Your task to perform on an android device: set the stopwatch Image 0: 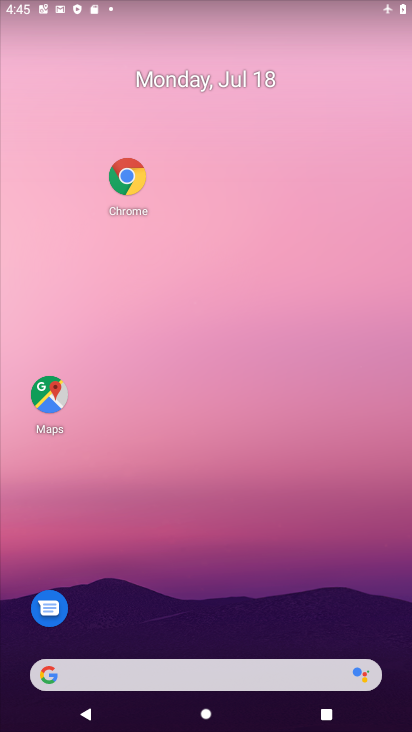
Step 0: drag from (225, 582) to (243, 99)
Your task to perform on an android device: set the stopwatch Image 1: 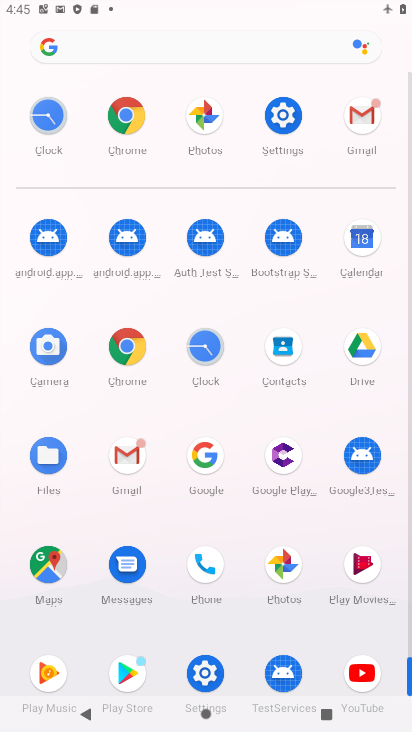
Step 1: drag from (213, 489) to (240, 314)
Your task to perform on an android device: set the stopwatch Image 2: 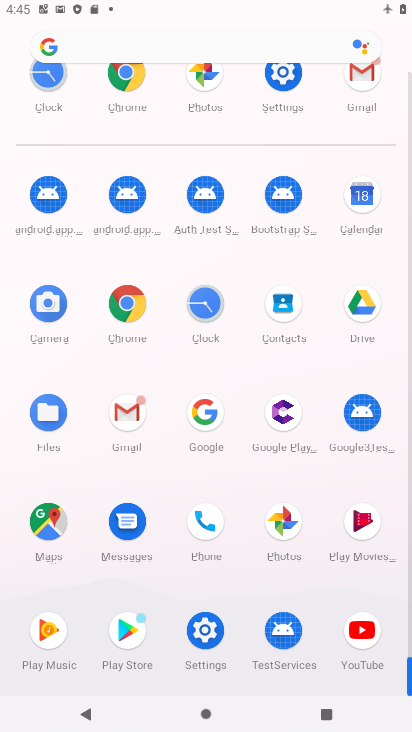
Step 2: click (205, 323)
Your task to perform on an android device: set the stopwatch Image 3: 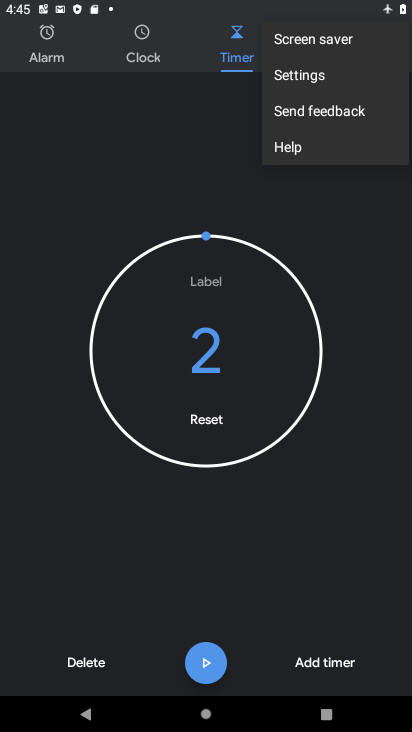
Step 3: click (211, 152)
Your task to perform on an android device: set the stopwatch Image 4: 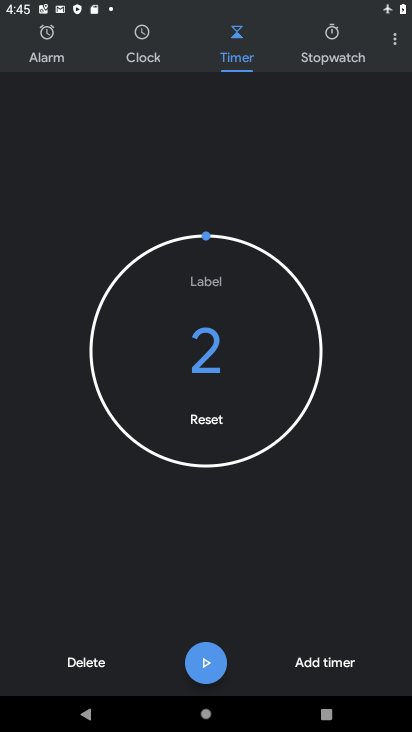
Step 4: click (337, 54)
Your task to perform on an android device: set the stopwatch Image 5: 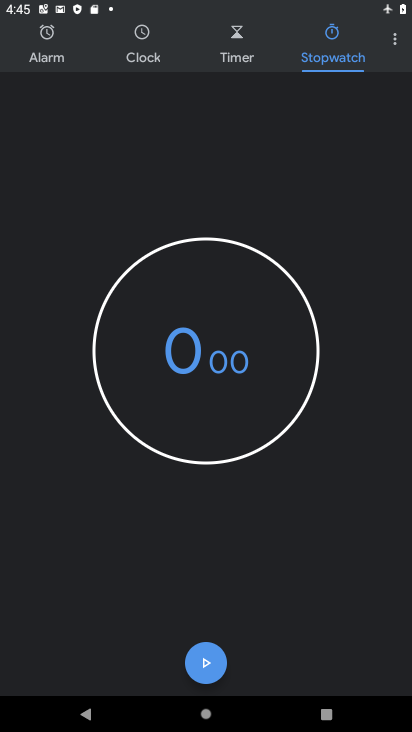
Step 5: click (208, 665)
Your task to perform on an android device: set the stopwatch Image 6: 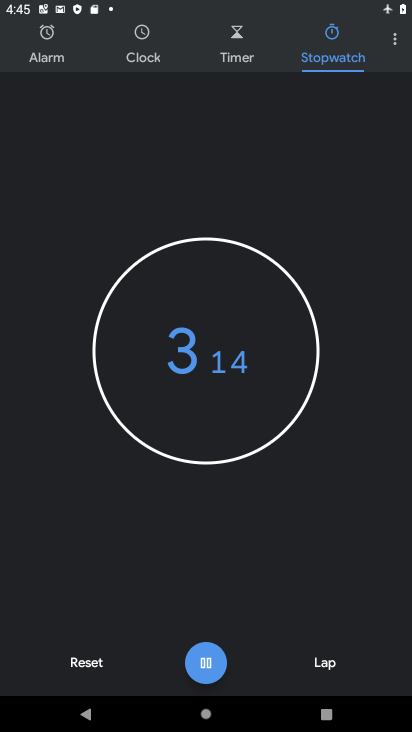
Step 6: task complete